Your task to perform on an android device: show emergency info Image 0: 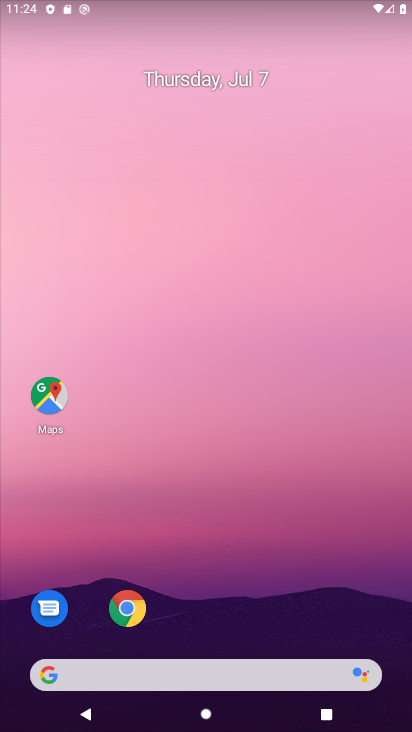
Step 0: drag from (315, 619) to (212, 165)
Your task to perform on an android device: show emergency info Image 1: 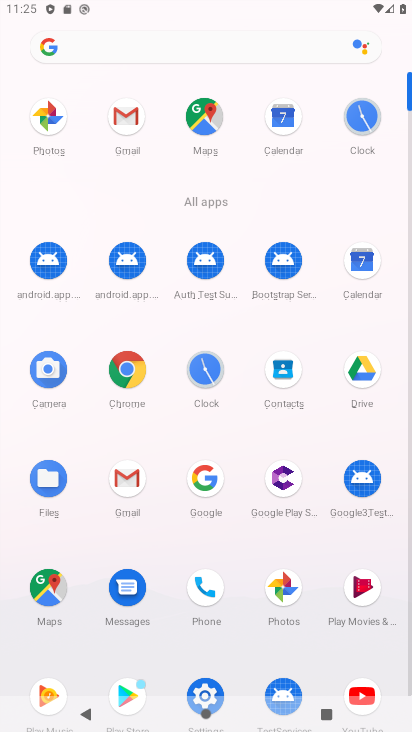
Step 1: click (200, 689)
Your task to perform on an android device: show emergency info Image 2: 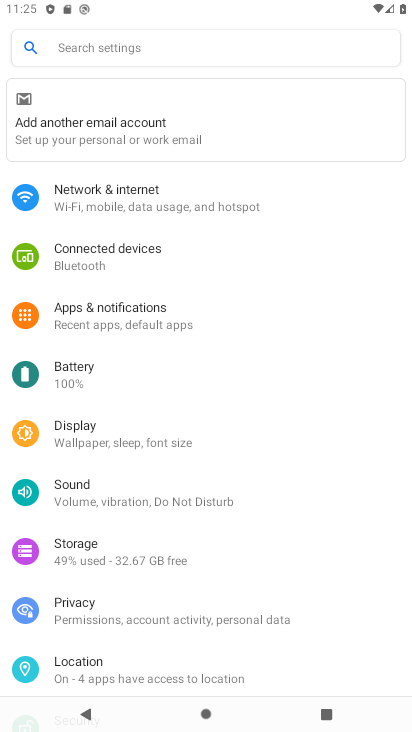
Step 2: drag from (137, 657) to (75, 209)
Your task to perform on an android device: show emergency info Image 3: 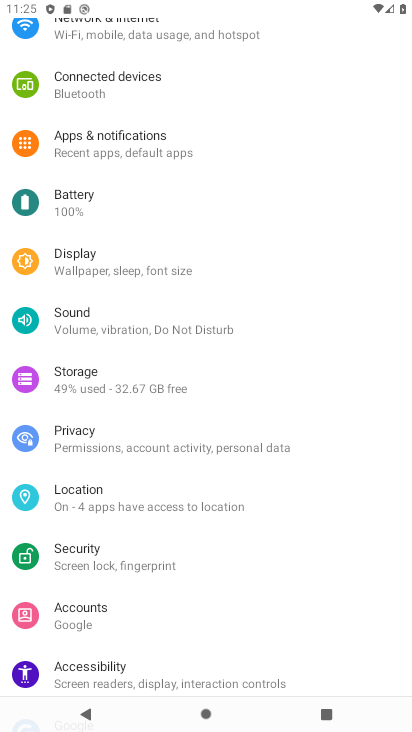
Step 3: drag from (173, 659) to (138, 446)
Your task to perform on an android device: show emergency info Image 4: 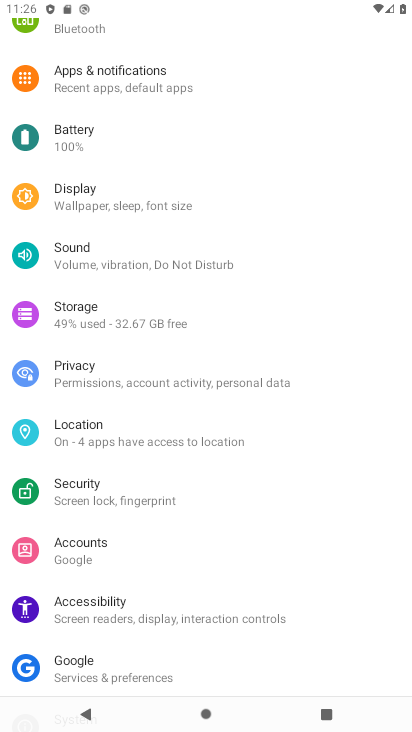
Step 4: drag from (190, 640) to (68, 96)
Your task to perform on an android device: show emergency info Image 5: 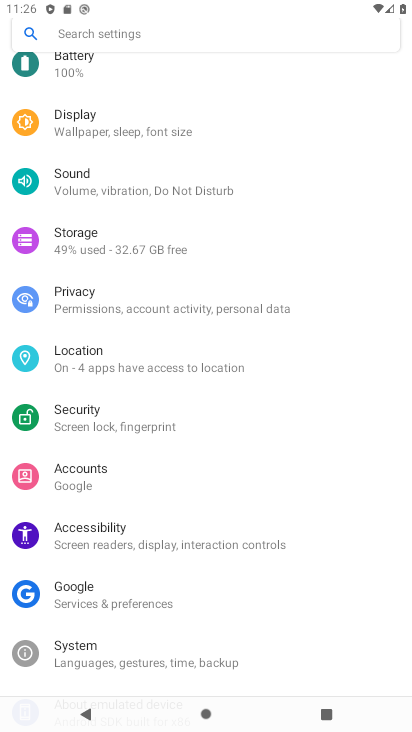
Step 5: click (137, 635)
Your task to perform on an android device: show emergency info Image 6: 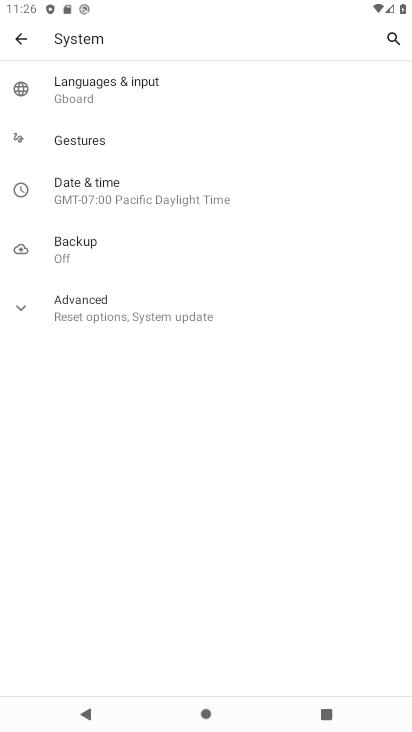
Step 6: task complete